Your task to perform on an android device: empty trash in the gmail app Image 0: 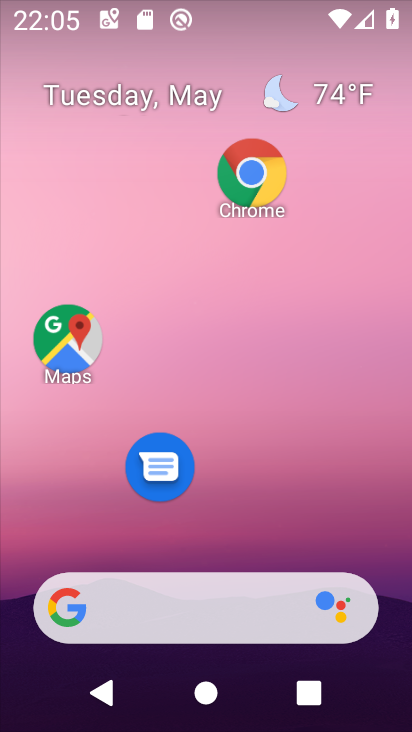
Step 0: drag from (383, 525) to (375, 140)
Your task to perform on an android device: empty trash in the gmail app Image 1: 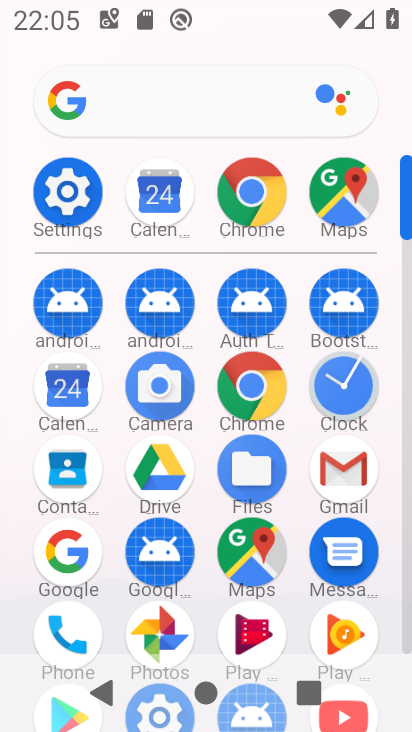
Step 1: click (347, 471)
Your task to perform on an android device: empty trash in the gmail app Image 2: 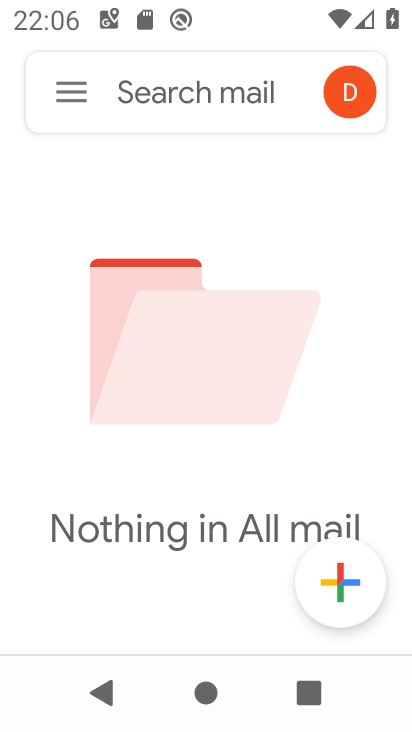
Step 2: click (66, 91)
Your task to perform on an android device: empty trash in the gmail app Image 3: 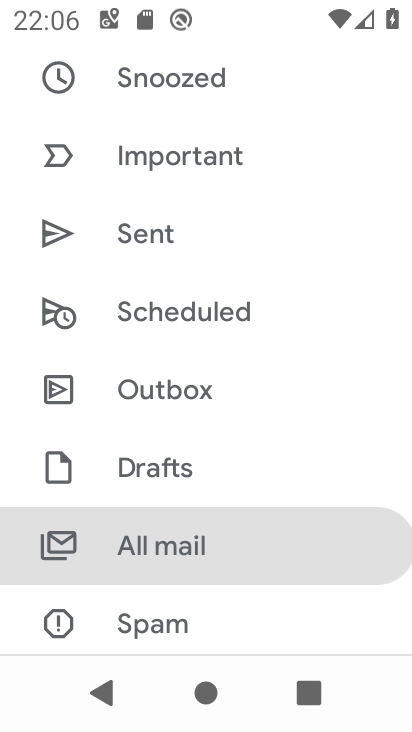
Step 3: drag from (241, 601) to (272, 156)
Your task to perform on an android device: empty trash in the gmail app Image 4: 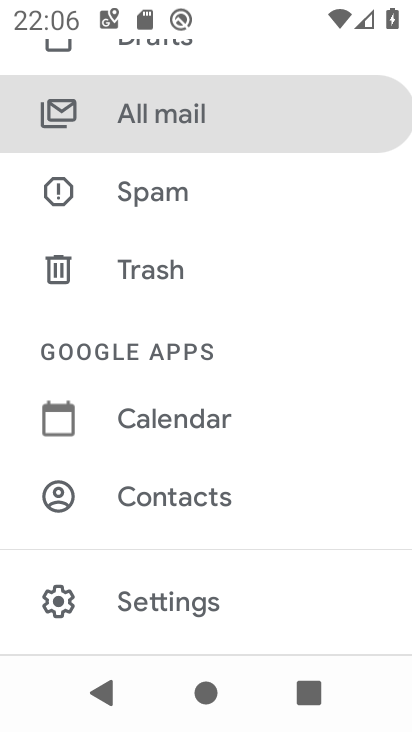
Step 4: click (195, 276)
Your task to perform on an android device: empty trash in the gmail app Image 5: 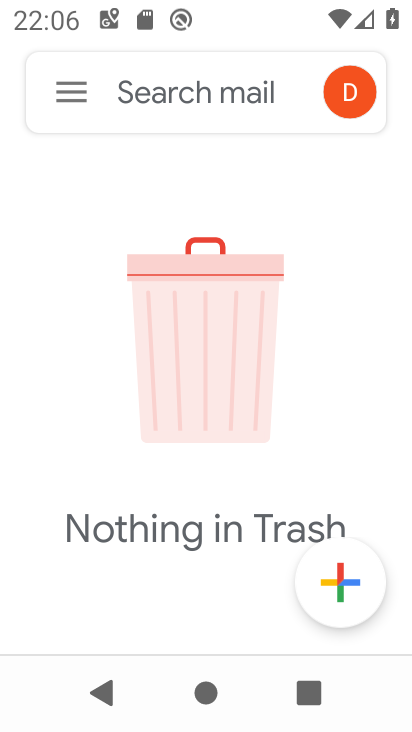
Step 5: task complete